Your task to perform on an android device: add a contact Image 0: 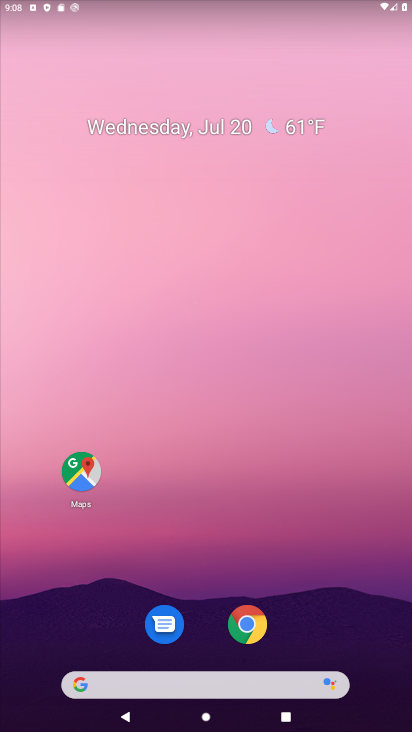
Step 0: drag from (188, 580) to (184, 209)
Your task to perform on an android device: add a contact Image 1: 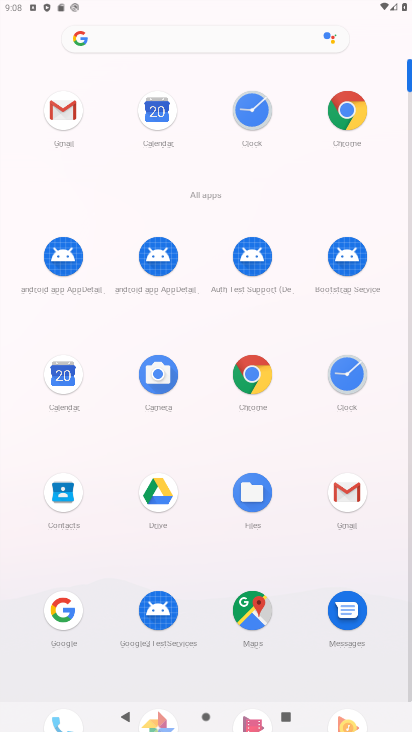
Step 1: click (71, 492)
Your task to perform on an android device: add a contact Image 2: 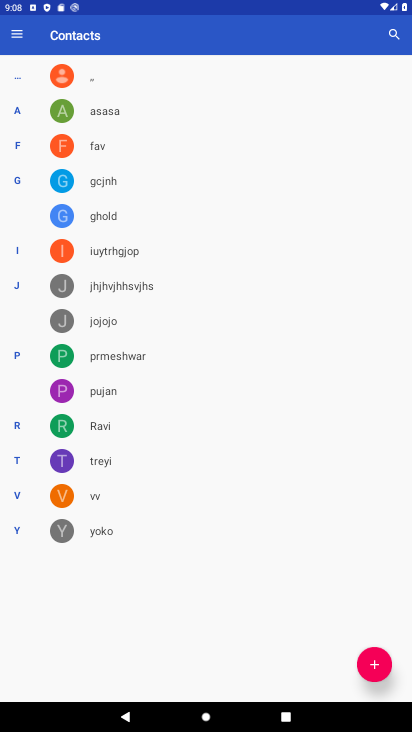
Step 2: click (370, 663)
Your task to perform on an android device: add a contact Image 3: 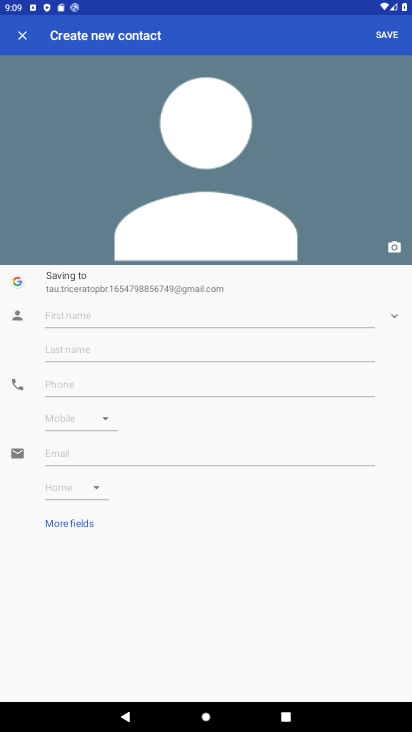
Step 3: click (87, 325)
Your task to perform on an android device: add a contact Image 4: 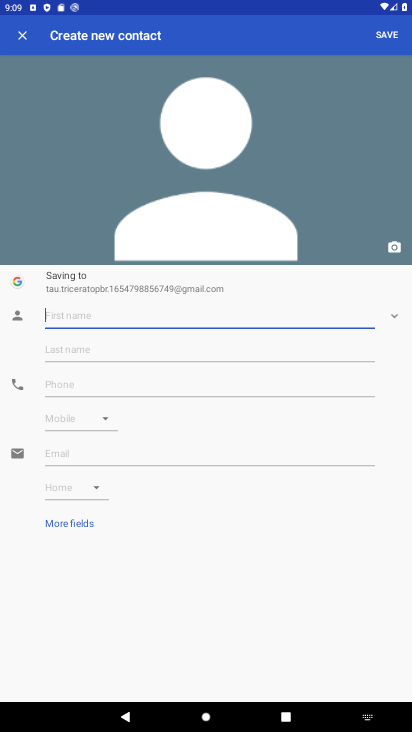
Step 4: type "hfhfgh"
Your task to perform on an android device: add a contact Image 5: 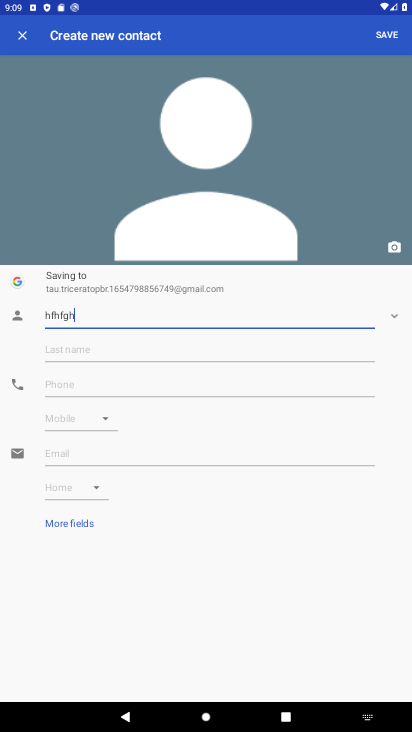
Step 5: click (139, 384)
Your task to perform on an android device: add a contact Image 6: 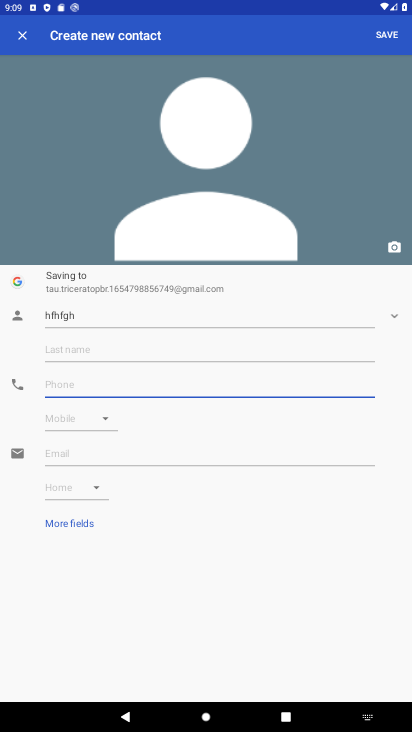
Step 6: type "7685747453"
Your task to perform on an android device: add a contact Image 7: 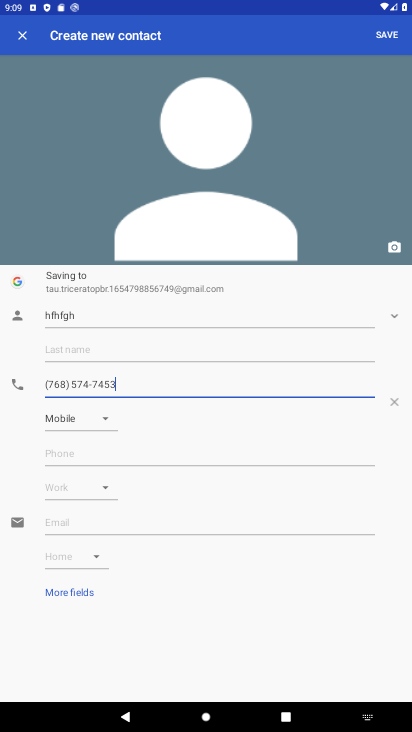
Step 7: click (384, 41)
Your task to perform on an android device: add a contact Image 8: 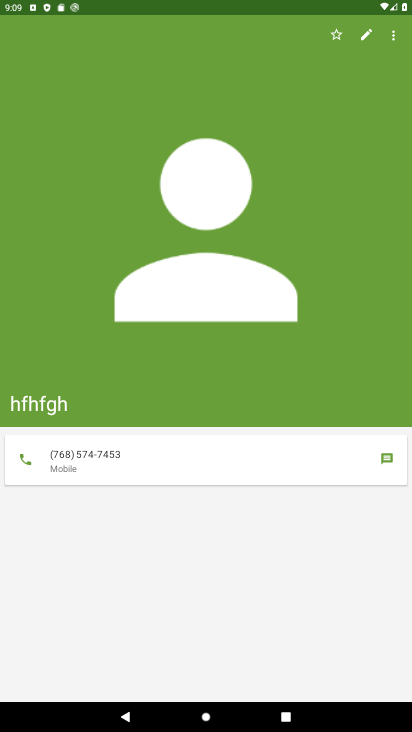
Step 8: task complete